Your task to perform on an android device: allow cookies in the chrome app Image 0: 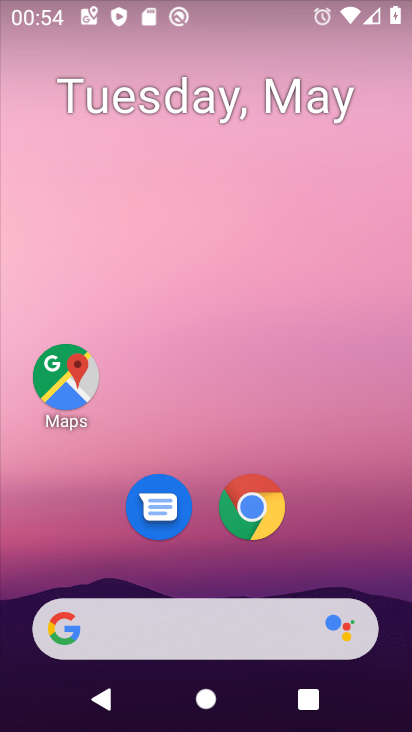
Step 0: drag from (226, 598) to (200, 304)
Your task to perform on an android device: allow cookies in the chrome app Image 1: 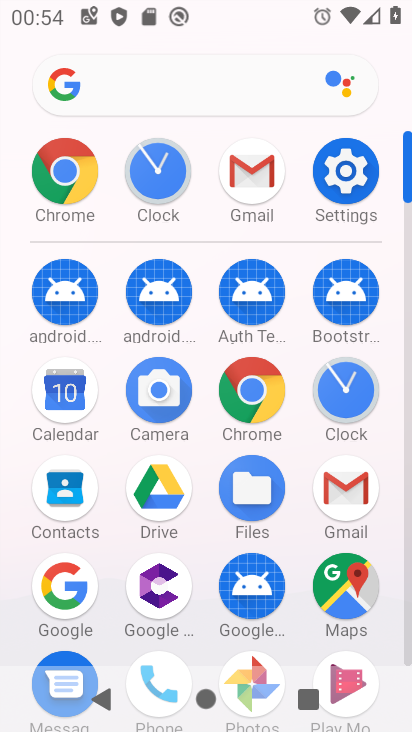
Step 1: click (269, 409)
Your task to perform on an android device: allow cookies in the chrome app Image 2: 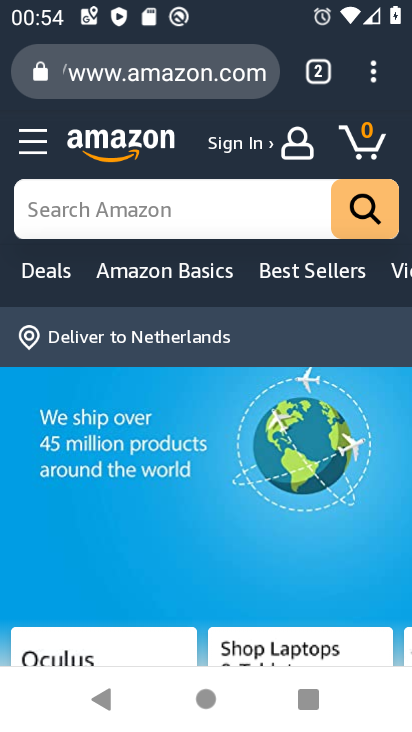
Step 2: click (369, 72)
Your task to perform on an android device: allow cookies in the chrome app Image 3: 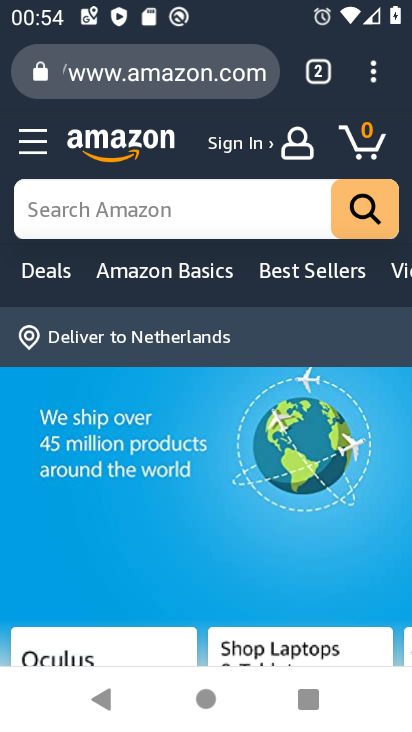
Step 3: click (370, 73)
Your task to perform on an android device: allow cookies in the chrome app Image 4: 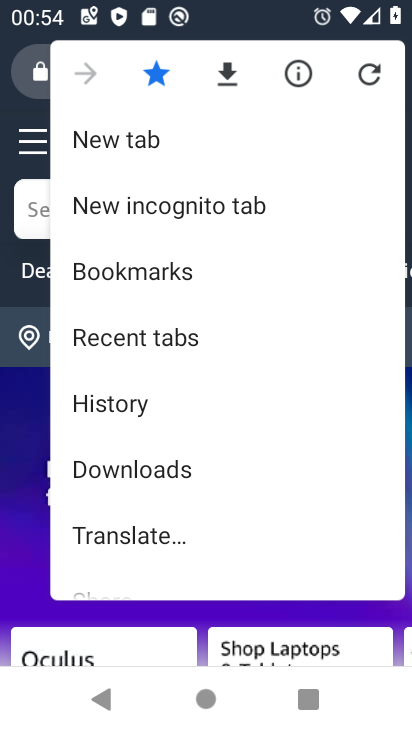
Step 4: drag from (187, 530) to (191, 173)
Your task to perform on an android device: allow cookies in the chrome app Image 5: 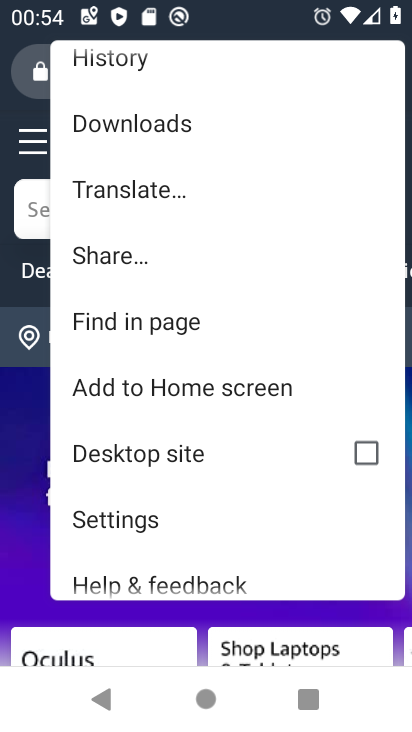
Step 5: click (152, 515)
Your task to perform on an android device: allow cookies in the chrome app Image 6: 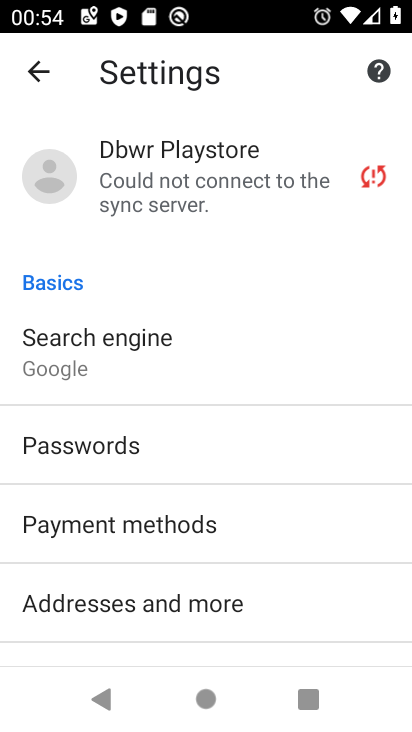
Step 6: drag from (173, 613) to (170, 308)
Your task to perform on an android device: allow cookies in the chrome app Image 7: 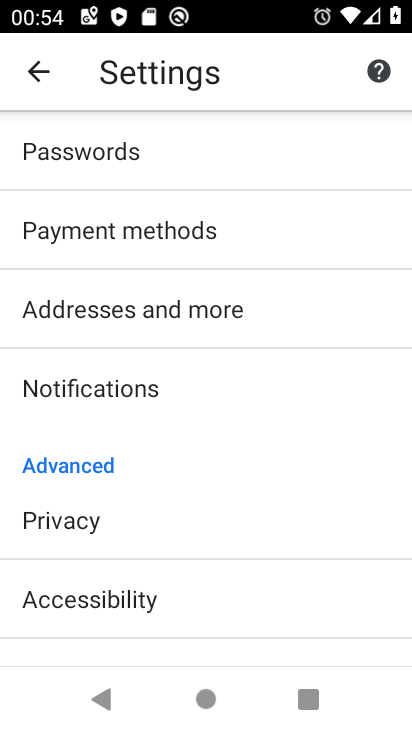
Step 7: drag from (120, 611) to (115, 293)
Your task to perform on an android device: allow cookies in the chrome app Image 8: 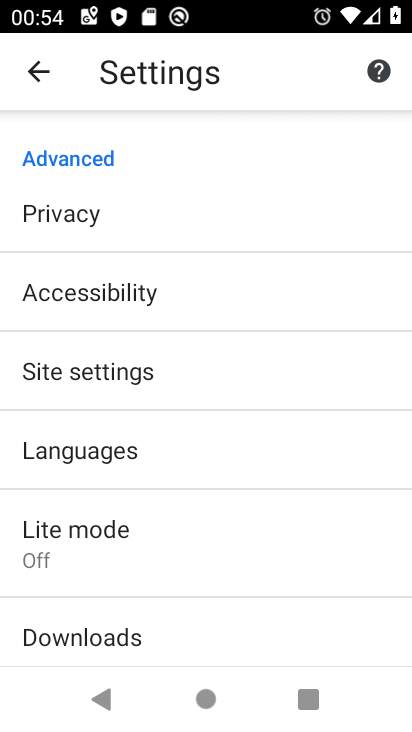
Step 8: click (77, 354)
Your task to perform on an android device: allow cookies in the chrome app Image 9: 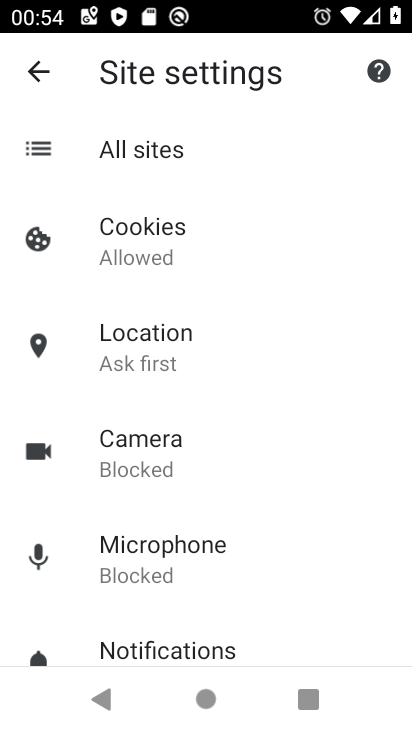
Step 9: click (141, 248)
Your task to perform on an android device: allow cookies in the chrome app Image 10: 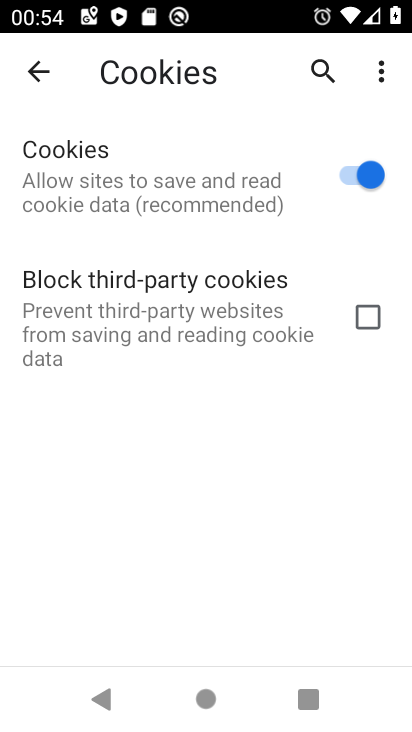
Step 10: task complete